Your task to perform on an android device: open a bookmark in the chrome app Image 0: 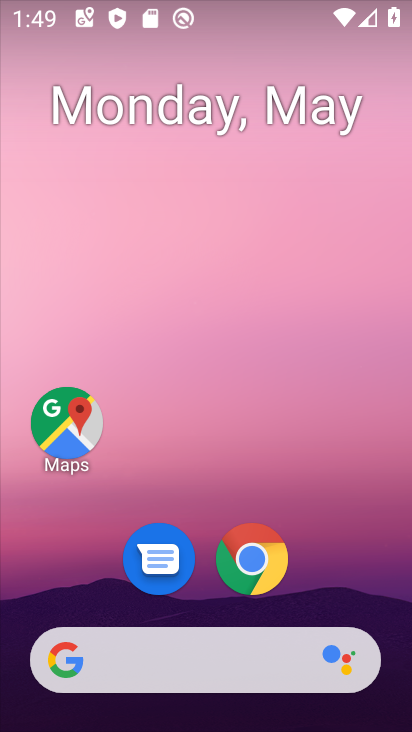
Step 0: click (283, 557)
Your task to perform on an android device: open a bookmark in the chrome app Image 1: 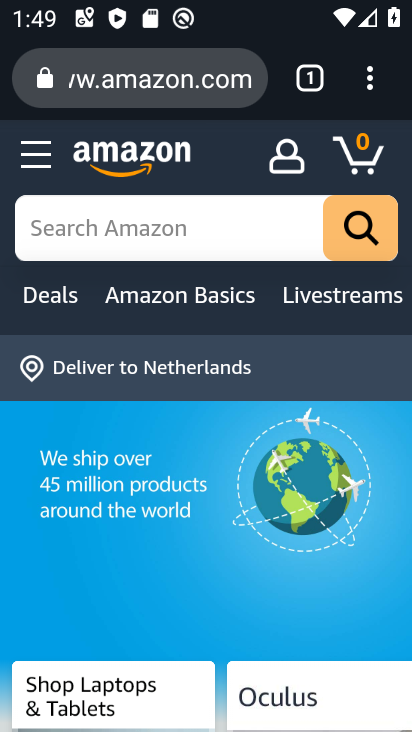
Step 1: click (364, 88)
Your task to perform on an android device: open a bookmark in the chrome app Image 2: 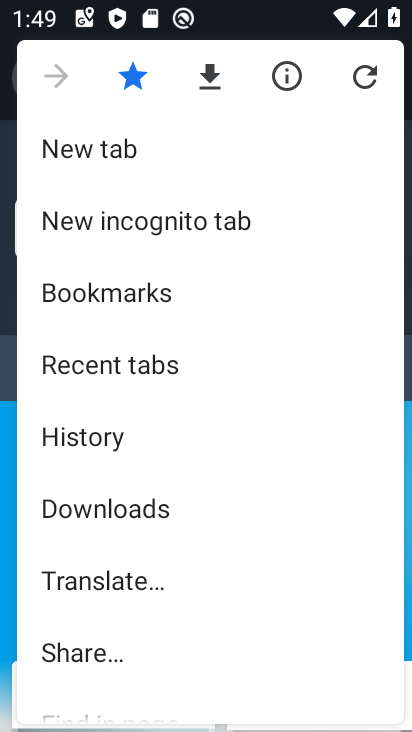
Step 2: click (191, 297)
Your task to perform on an android device: open a bookmark in the chrome app Image 3: 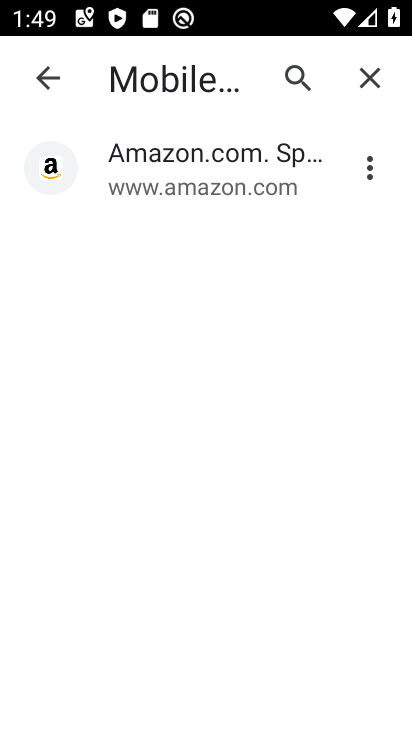
Step 3: click (299, 162)
Your task to perform on an android device: open a bookmark in the chrome app Image 4: 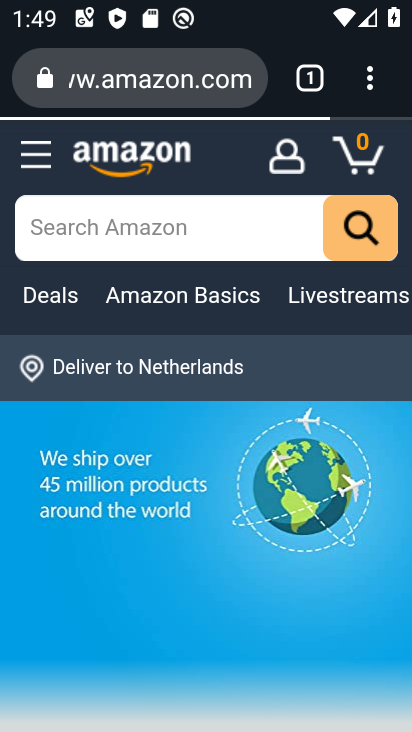
Step 4: task complete